Your task to perform on an android device: Go to accessibility settings Image 0: 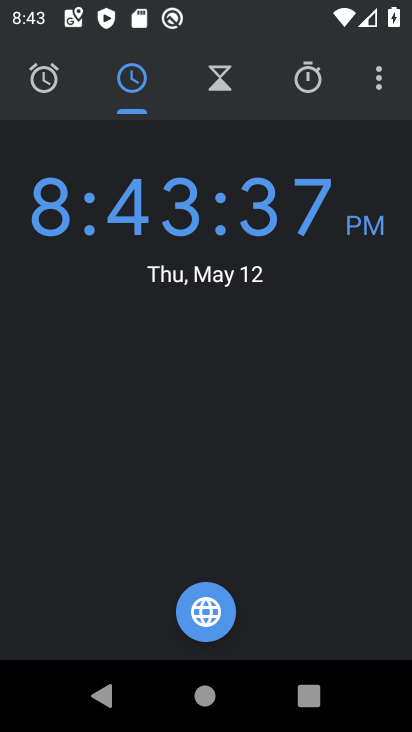
Step 0: press home button
Your task to perform on an android device: Go to accessibility settings Image 1: 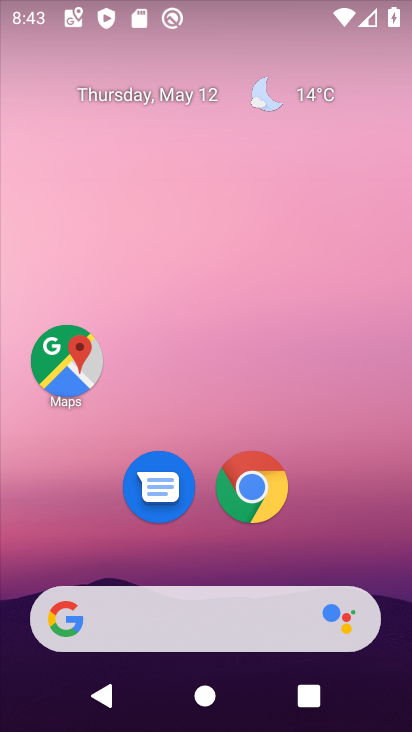
Step 1: drag from (22, 602) to (234, 167)
Your task to perform on an android device: Go to accessibility settings Image 2: 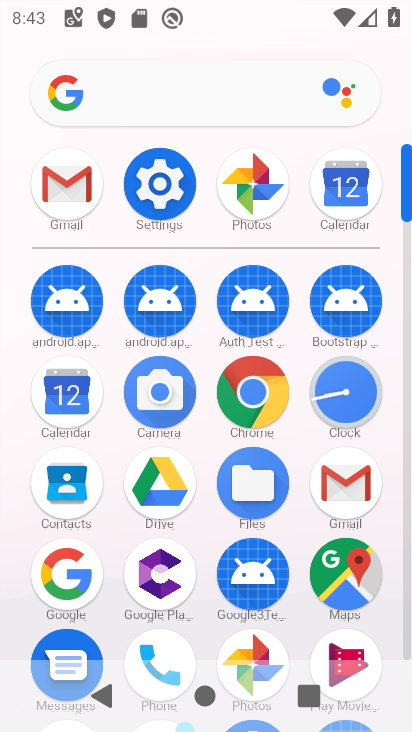
Step 2: click (170, 179)
Your task to perform on an android device: Go to accessibility settings Image 3: 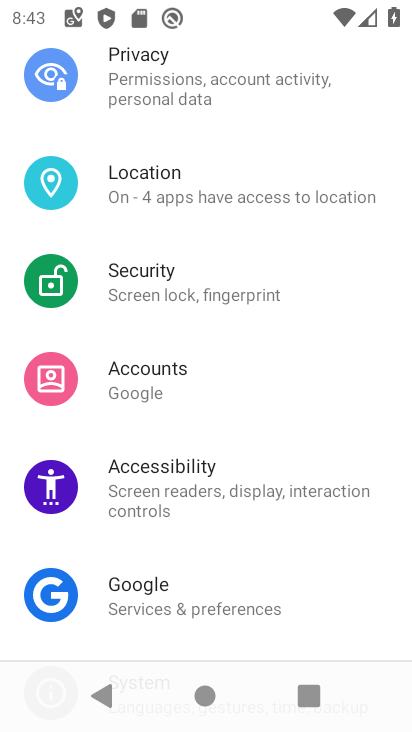
Step 3: click (210, 469)
Your task to perform on an android device: Go to accessibility settings Image 4: 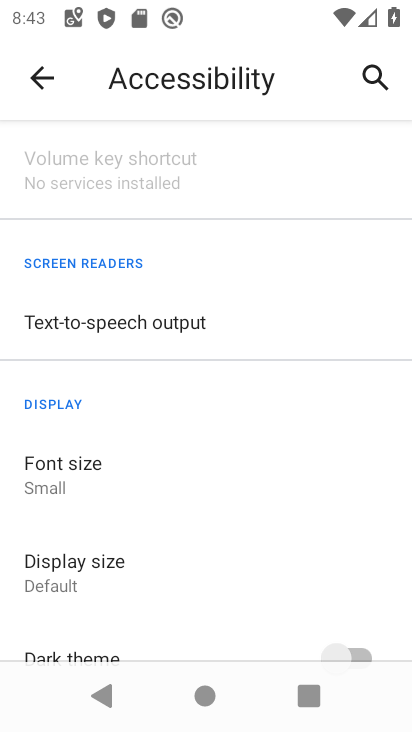
Step 4: task complete